Your task to perform on an android device: Open Youtube and go to the subscriptions tab Image 0: 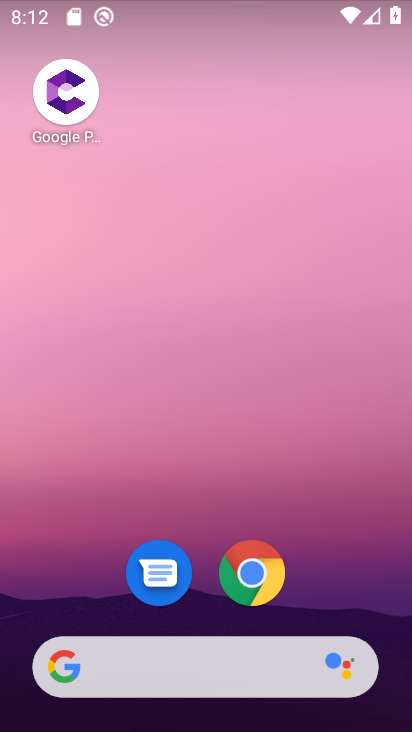
Step 0: click (362, 314)
Your task to perform on an android device: Open Youtube and go to the subscriptions tab Image 1: 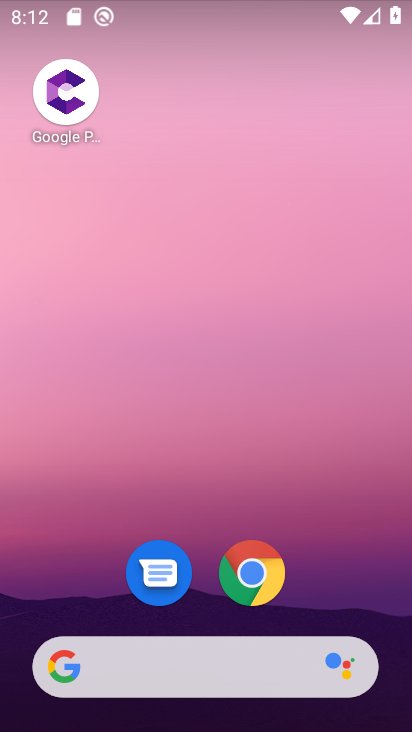
Step 1: drag from (315, 599) to (304, 316)
Your task to perform on an android device: Open Youtube and go to the subscriptions tab Image 2: 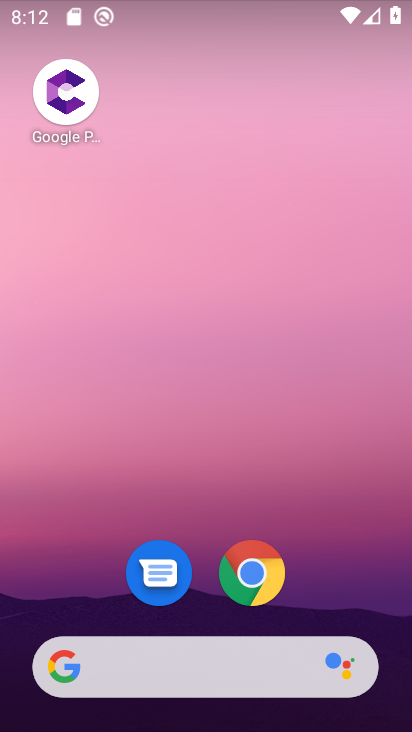
Step 2: drag from (273, 416) to (243, 152)
Your task to perform on an android device: Open Youtube and go to the subscriptions tab Image 3: 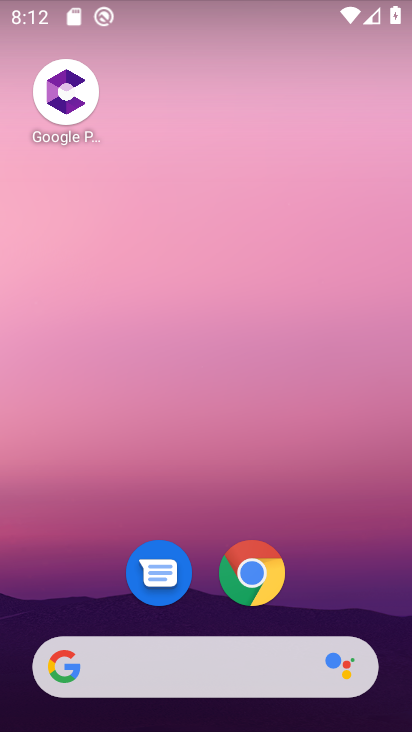
Step 3: drag from (315, 505) to (302, 181)
Your task to perform on an android device: Open Youtube and go to the subscriptions tab Image 4: 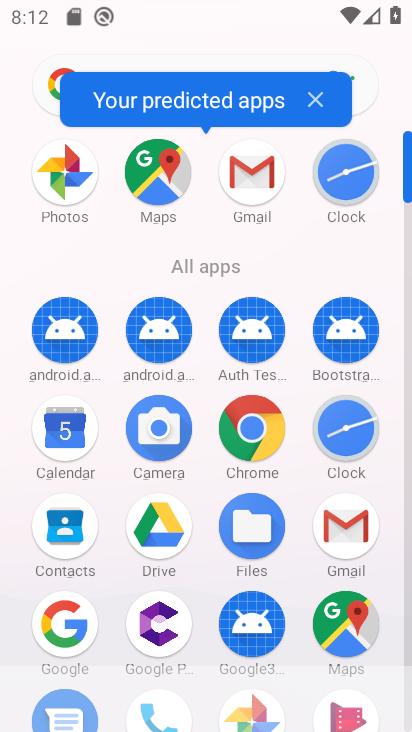
Step 4: drag from (289, 574) to (289, 126)
Your task to perform on an android device: Open Youtube and go to the subscriptions tab Image 5: 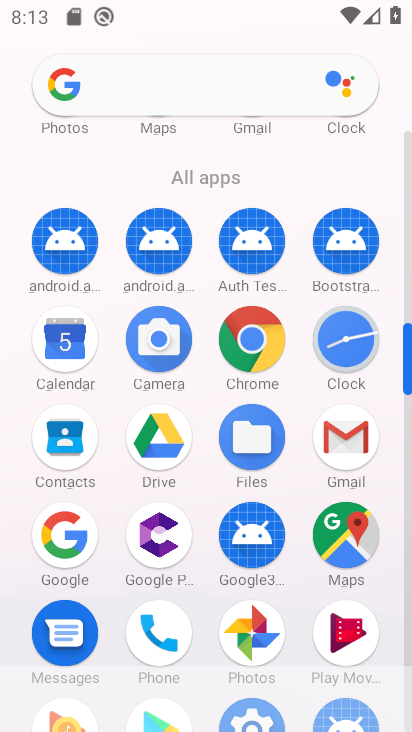
Step 5: drag from (305, 169) to (309, 110)
Your task to perform on an android device: Open Youtube and go to the subscriptions tab Image 6: 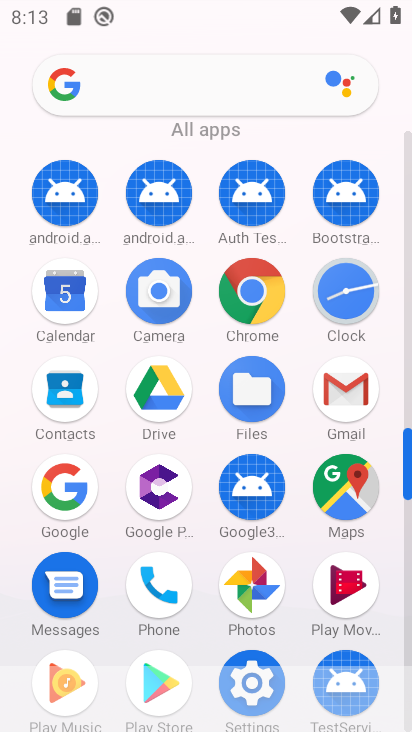
Step 6: drag from (297, 197) to (297, 103)
Your task to perform on an android device: Open Youtube and go to the subscriptions tab Image 7: 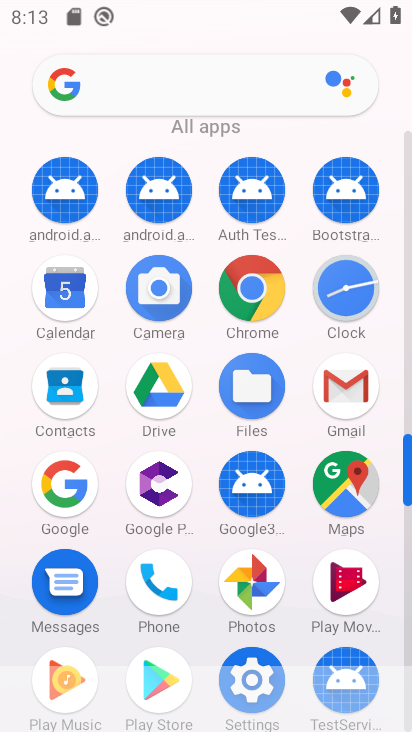
Step 7: drag from (299, 410) to (294, 223)
Your task to perform on an android device: Open Youtube and go to the subscriptions tab Image 8: 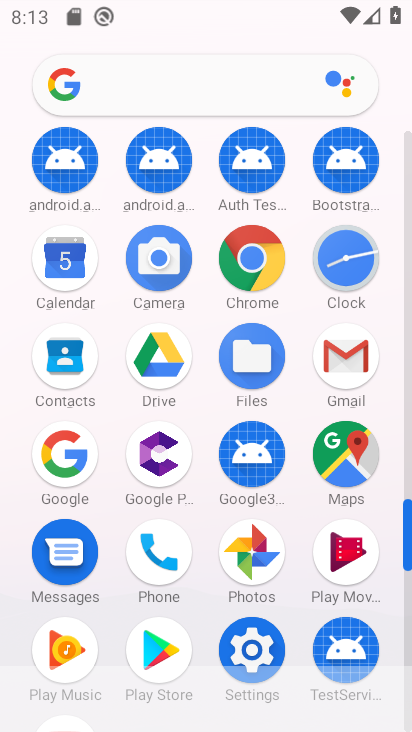
Step 8: click (292, 159)
Your task to perform on an android device: Open Youtube and go to the subscriptions tab Image 9: 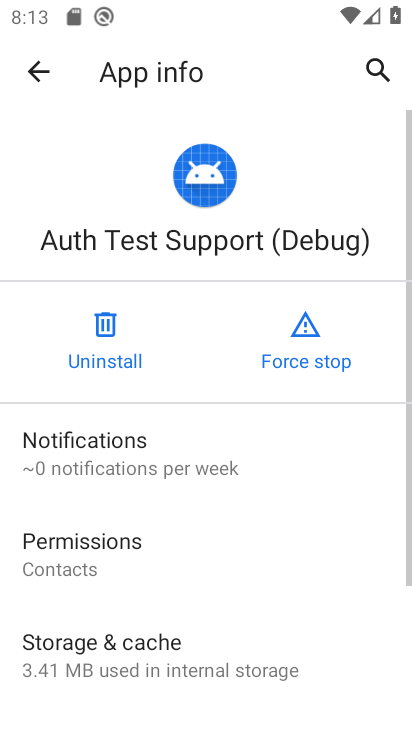
Step 9: click (39, 71)
Your task to perform on an android device: Open Youtube and go to the subscriptions tab Image 10: 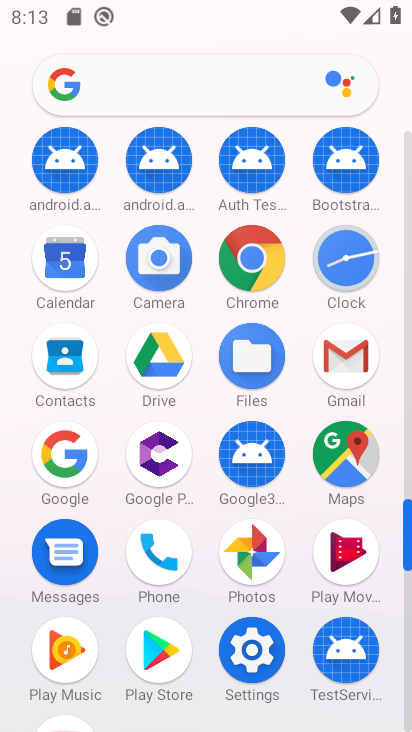
Step 10: drag from (410, 542) to (410, 604)
Your task to perform on an android device: Open Youtube and go to the subscriptions tab Image 11: 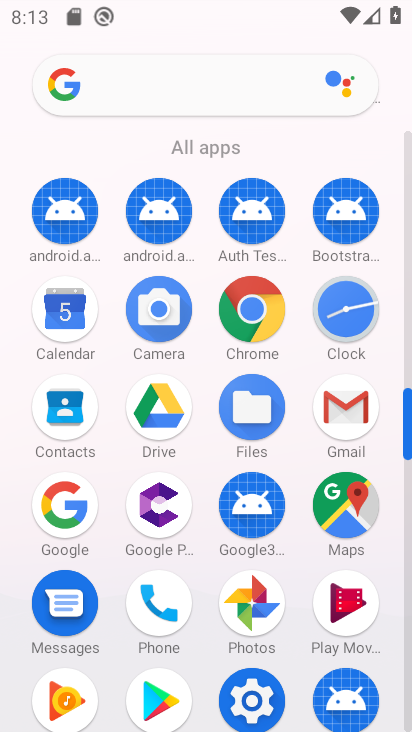
Step 11: click (410, 604)
Your task to perform on an android device: Open Youtube and go to the subscriptions tab Image 12: 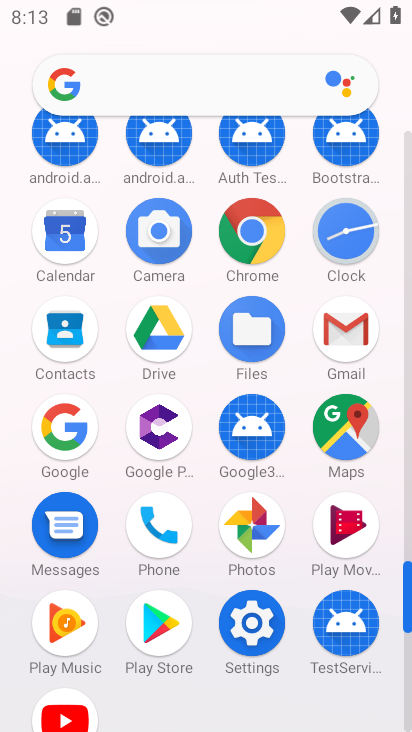
Step 12: click (68, 696)
Your task to perform on an android device: Open Youtube and go to the subscriptions tab Image 13: 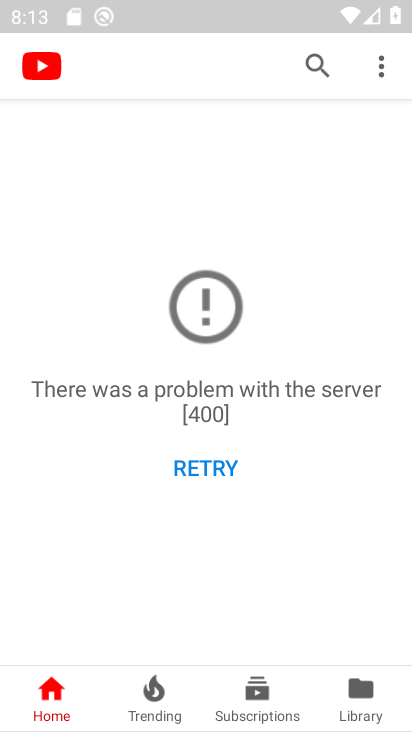
Step 13: click (250, 708)
Your task to perform on an android device: Open Youtube and go to the subscriptions tab Image 14: 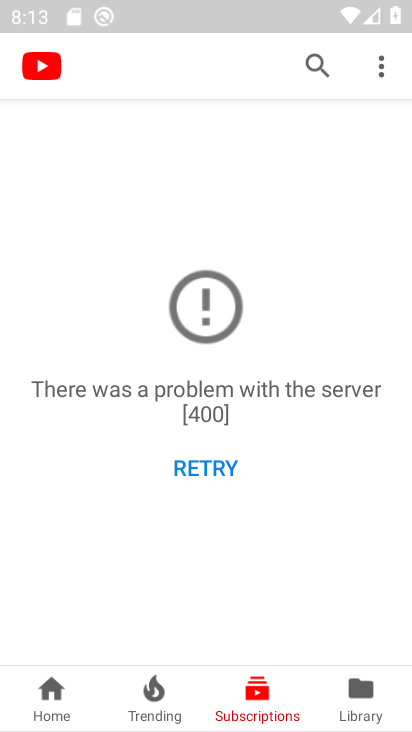
Step 14: task complete